Your task to perform on an android device: Show me the best rated vacuum on Walmart. Image 0: 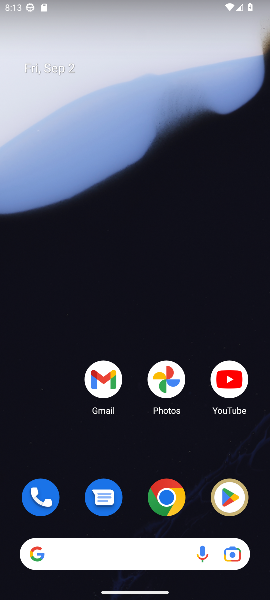
Step 0: drag from (131, 479) to (133, 254)
Your task to perform on an android device: Show me the best rated vacuum on Walmart. Image 1: 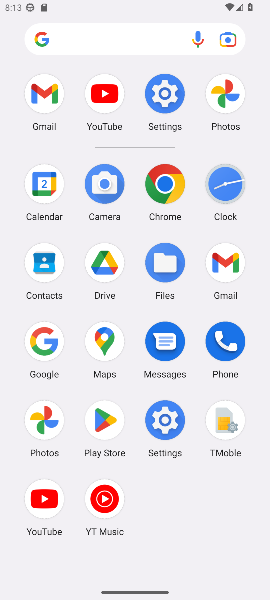
Step 1: click (45, 347)
Your task to perform on an android device: Show me the best rated vacuum on Walmart. Image 2: 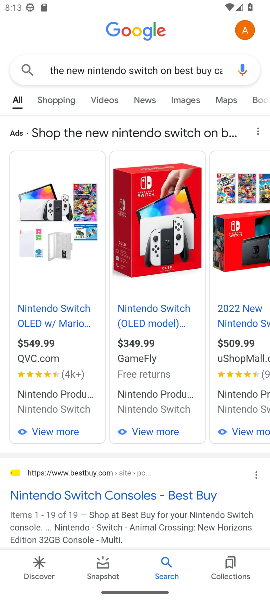
Step 2: click (223, 75)
Your task to perform on an android device: Show me the best rated vacuum on Walmart. Image 3: 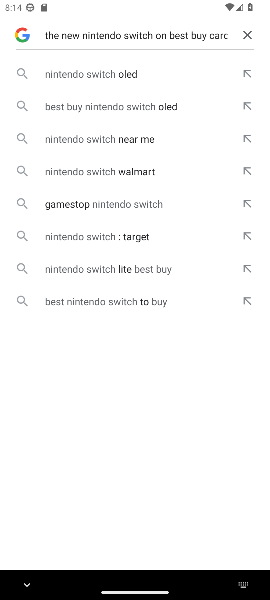
Step 3: click (241, 32)
Your task to perform on an android device: Show me the best rated vacuum on Walmart. Image 4: 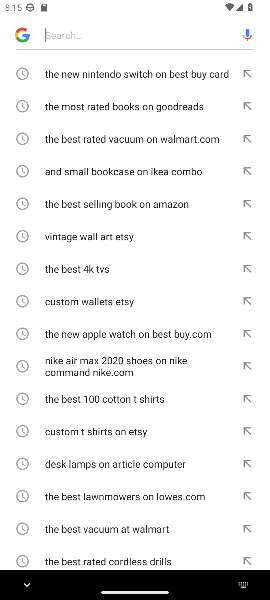
Step 4: type "the best rated vacuum on Walmart"
Your task to perform on an android device: Show me the best rated vacuum on Walmart. Image 5: 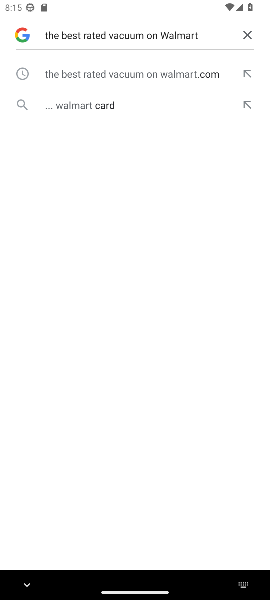
Step 5: click (132, 73)
Your task to perform on an android device: Show me the best rated vacuum on Walmart. Image 6: 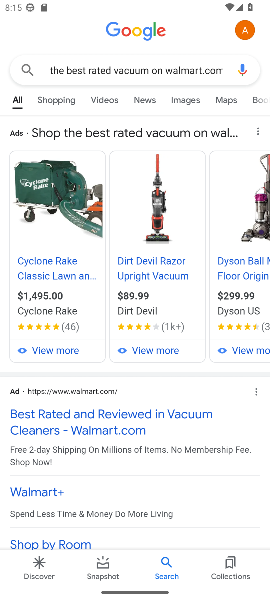
Step 6: task complete